Your task to perform on an android device: Do I have any events this weekend? Image 0: 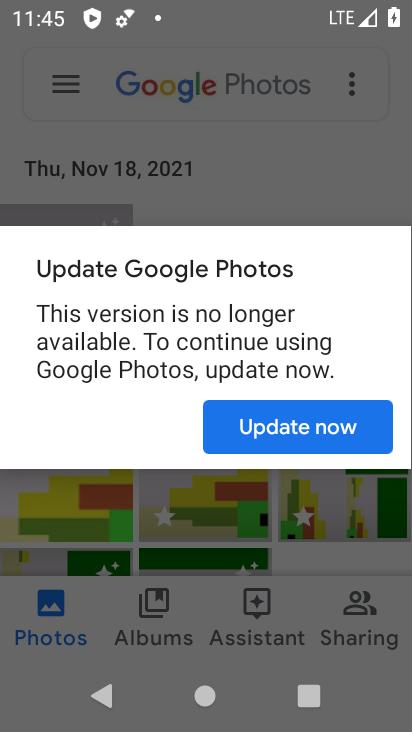
Step 0: press home button
Your task to perform on an android device: Do I have any events this weekend? Image 1: 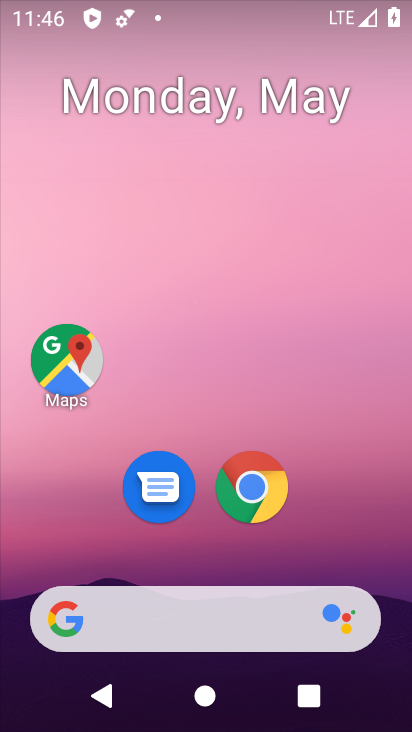
Step 1: drag from (37, 524) to (53, 630)
Your task to perform on an android device: Do I have any events this weekend? Image 2: 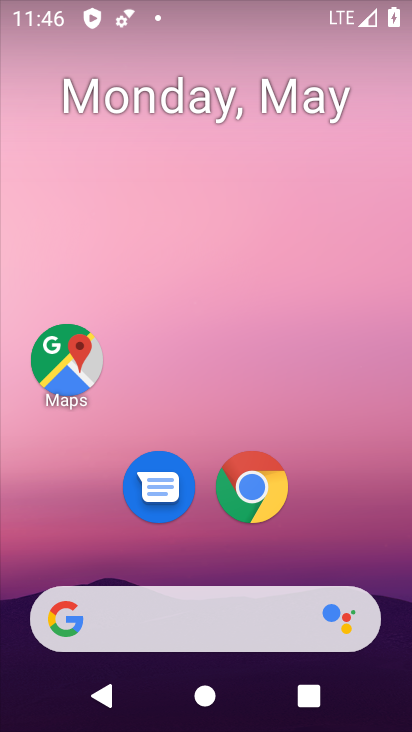
Step 2: click (149, 619)
Your task to perform on an android device: Do I have any events this weekend? Image 3: 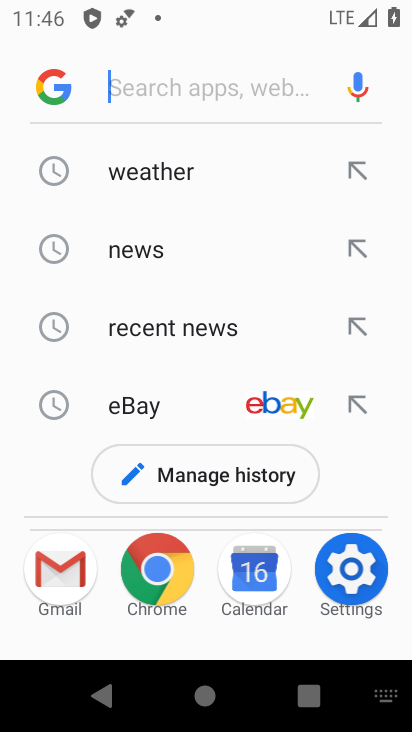
Step 3: press home button
Your task to perform on an android device: Do I have any events this weekend? Image 4: 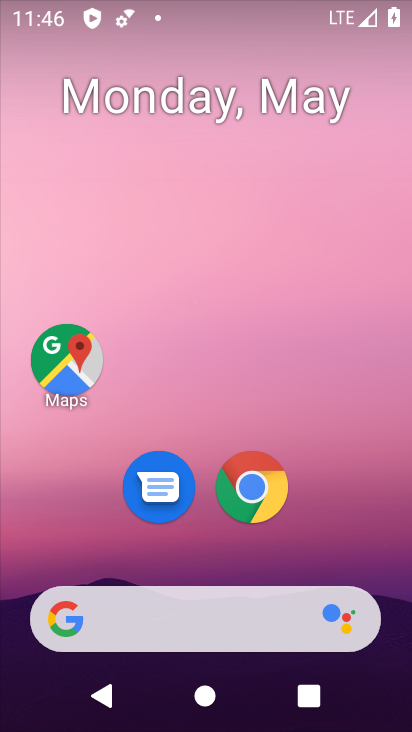
Step 4: drag from (44, 485) to (248, 196)
Your task to perform on an android device: Do I have any events this weekend? Image 5: 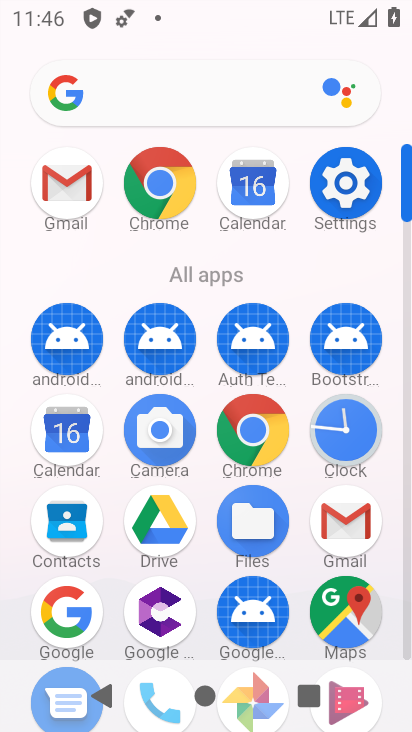
Step 5: click (257, 173)
Your task to perform on an android device: Do I have any events this weekend? Image 6: 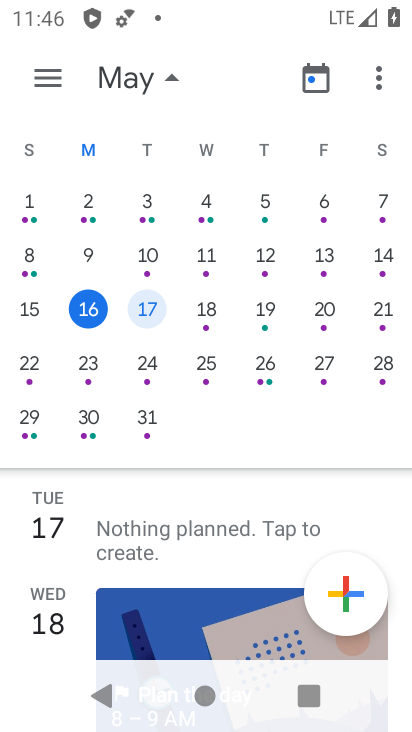
Step 6: click (374, 314)
Your task to perform on an android device: Do I have any events this weekend? Image 7: 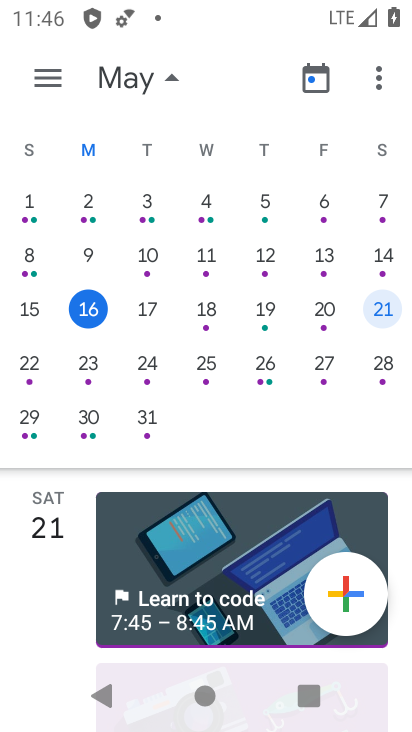
Step 7: click (41, 367)
Your task to perform on an android device: Do I have any events this weekend? Image 8: 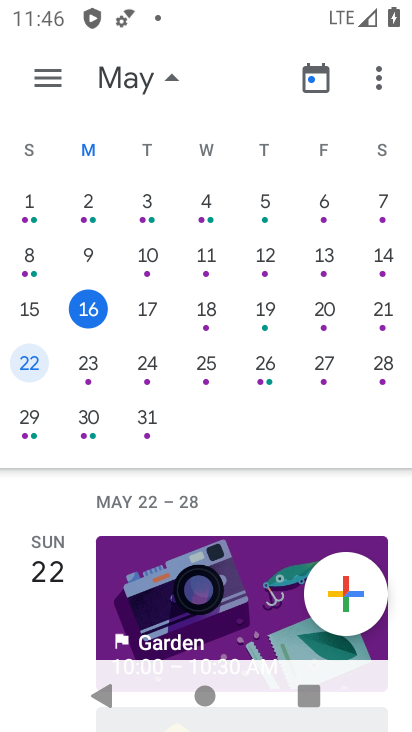
Step 8: task complete